Your task to perform on an android device: change the clock style Image 0: 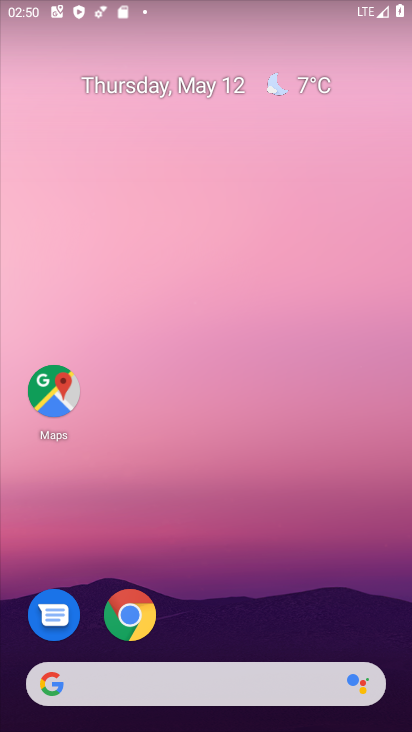
Step 0: drag from (210, 684) to (332, 412)
Your task to perform on an android device: change the clock style Image 1: 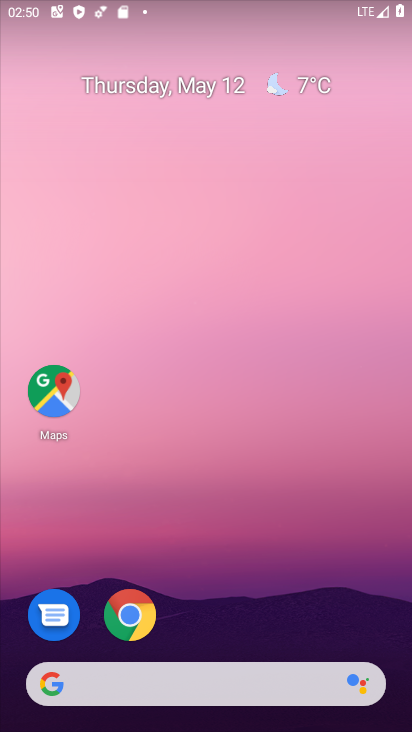
Step 1: drag from (255, 701) to (247, 414)
Your task to perform on an android device: change the clock style Image 2: 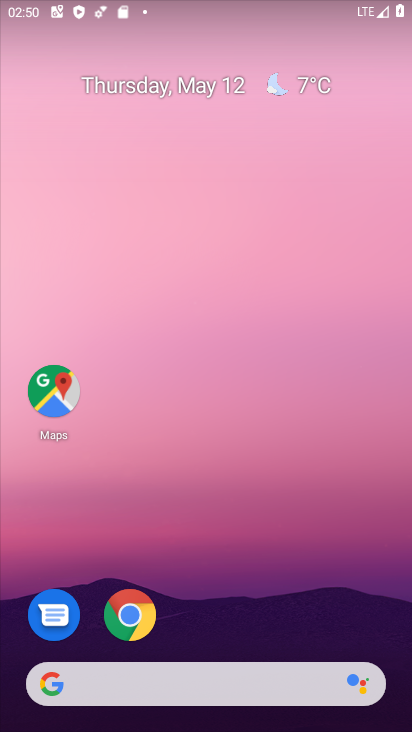
Step 2: drag from (192, 672) to (91, 2)
Your task to perform on an android device: change the clock style Image 3: 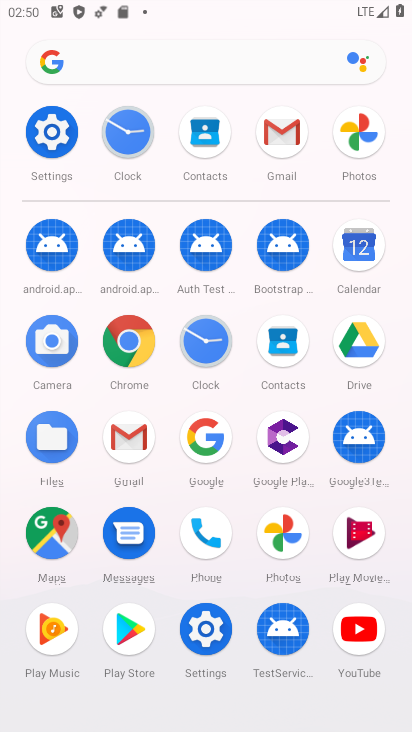
Step 3: click (200, 332)
Your task to perform on an android device: change the clock style Image 4: 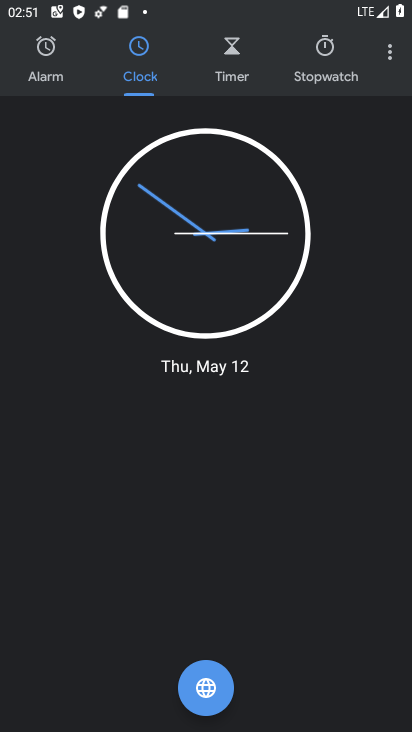
Step 4: click (386, 57)
Your task to perform on an android device: change the clock style Image 5: 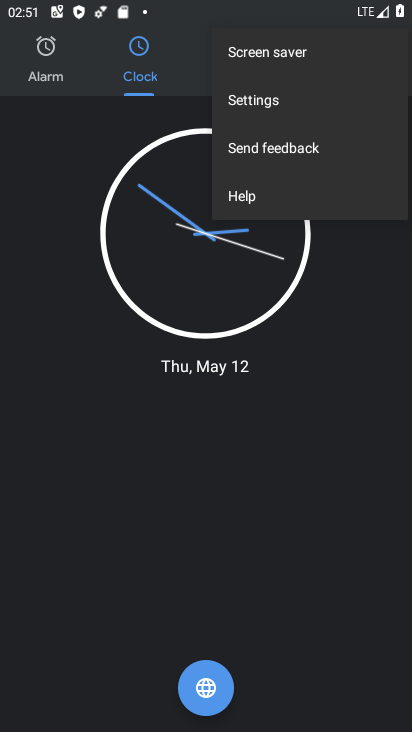
Step 5: click (280, 101)
Your task to perform on an android device: change the clock style Image 6: 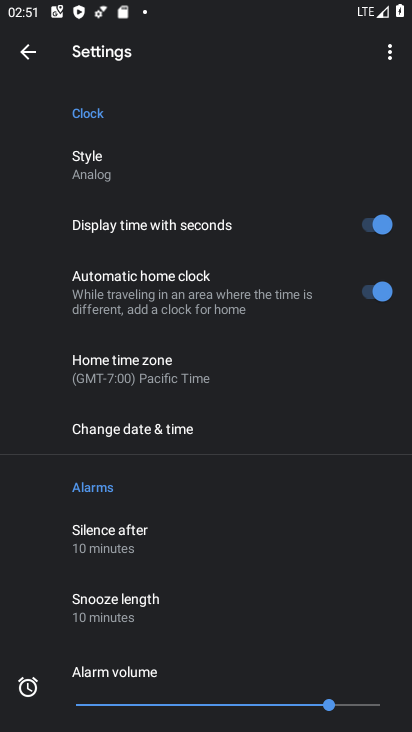
Step 6: click (134, 183)
Your task to perform on an android device: change the clock style Image 7: 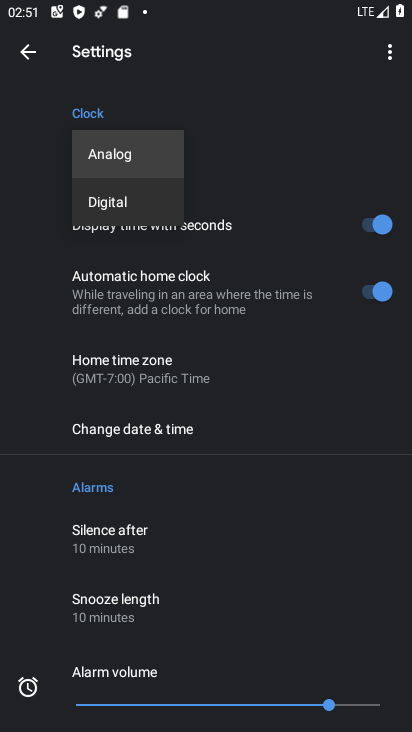
Step 7: click (151, 210)
Your task to perform on an android device: change the clock style Image 8: 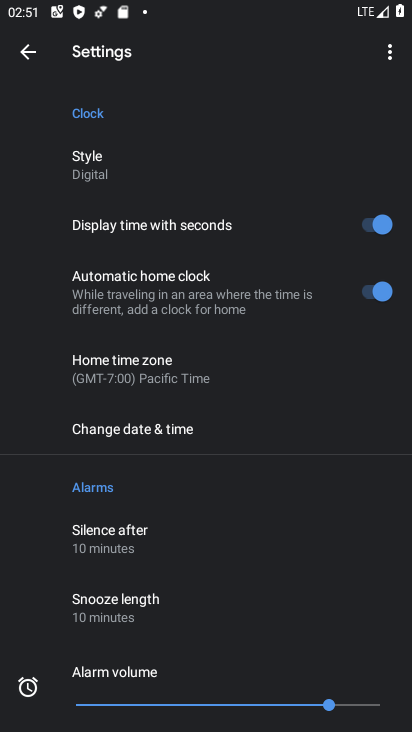
Step 8: task complete